Your task to perform on an android device: Open Amazon Image 0: 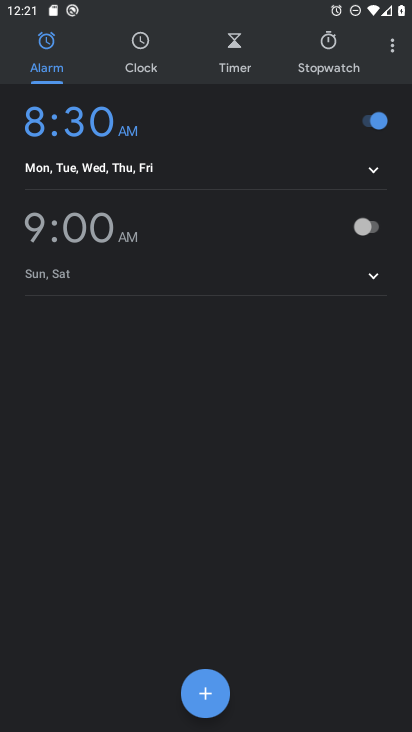
Step 0: press home button
Your task to perform on an android device: Open Amazon Image 1: 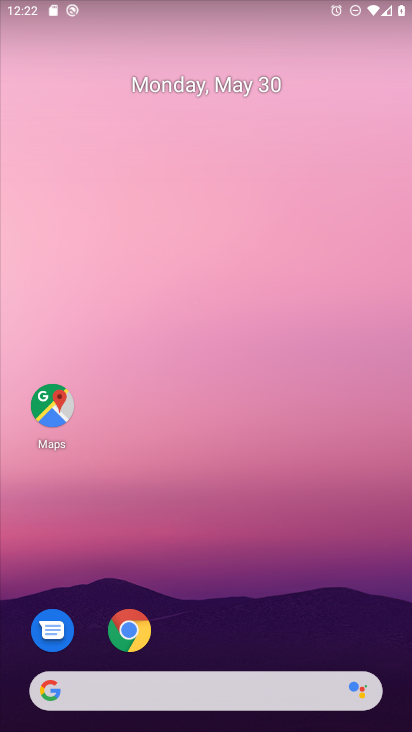
Step 1: click (126, 626)
Your task to perform on an android device: Open Amazon Image 2: 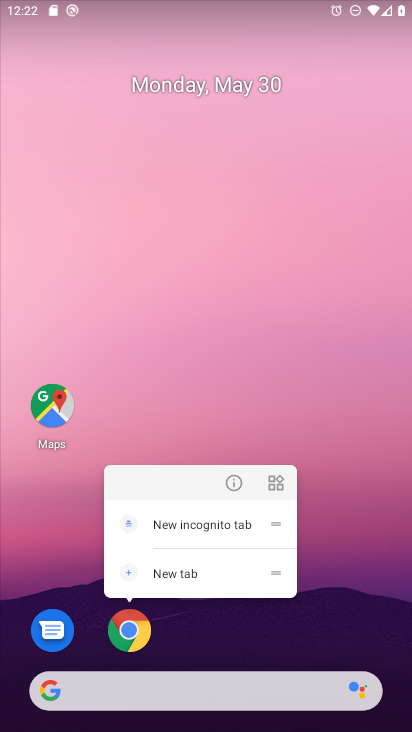
Step 2: click (121, 639)
Your task to perform on an android device: Open Amazon Image 3: 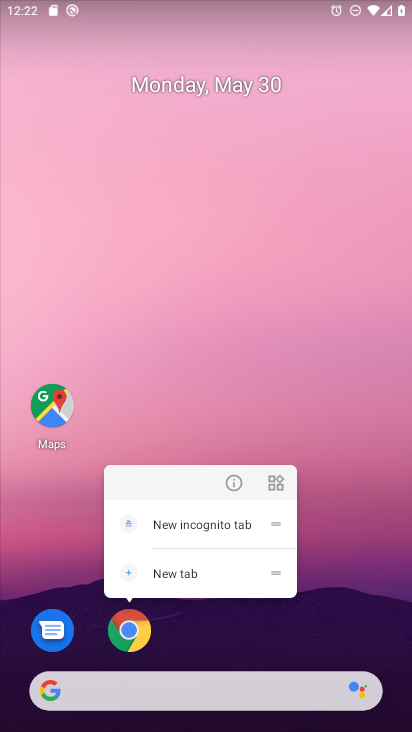
Step 3: click (120, 645)
Your task to perform on an android device: Open Amazon Image 4: 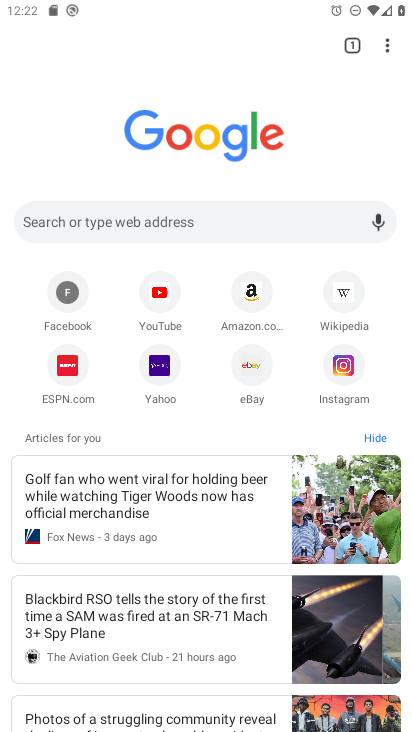
Step 4: click (249, 292)
Your task to perform on an android device: Open Amazon Image 5: 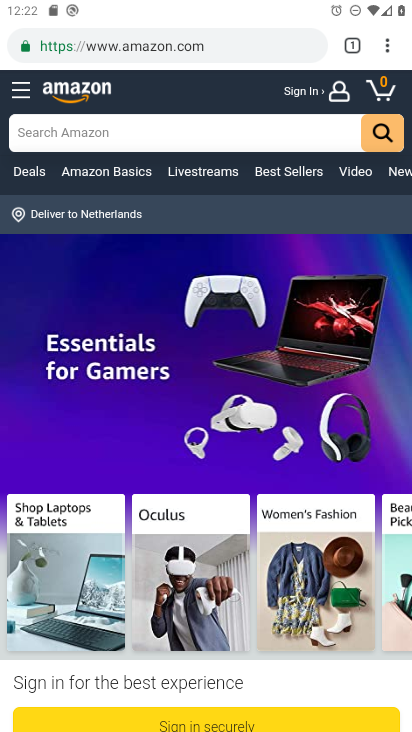
Step 5: task complete